Your task to perform on an android device: What is the news today? Image 0: 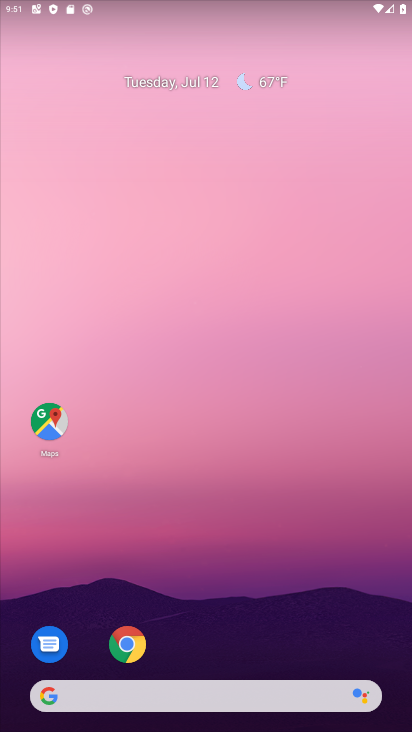
Step 0: drag from (156, 573) to (207, 133)
Your task to perform on an android device: What is the news today? Image 1: 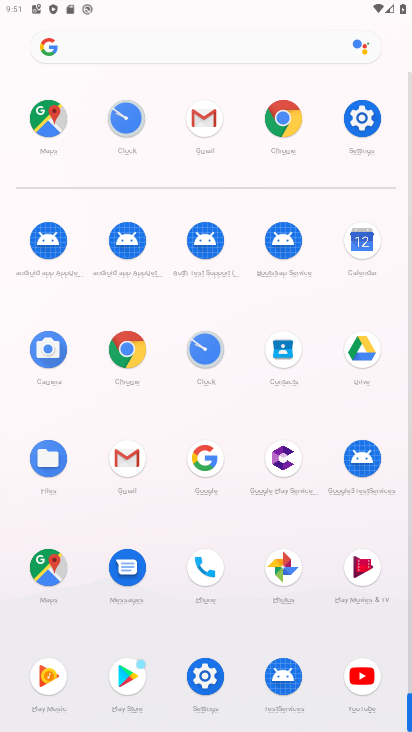
Step 1: click (143, 41)
Your task to perform on an android device: What is the news today? Image 2: 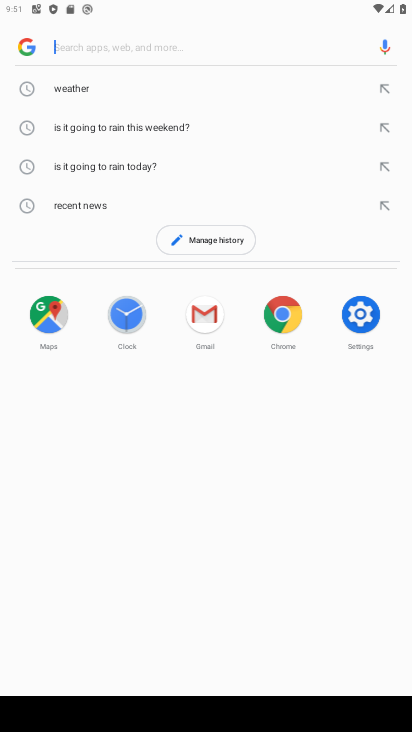
Step 2: type "news today"
Your task to perform on an android device: What is the news today? Image 3: 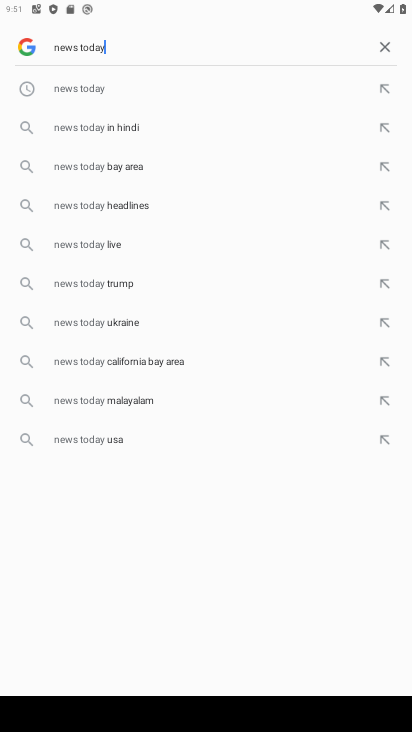
Step 3: click (125, 89)
Your task to perform on an android device: What is the news today? Image 4: 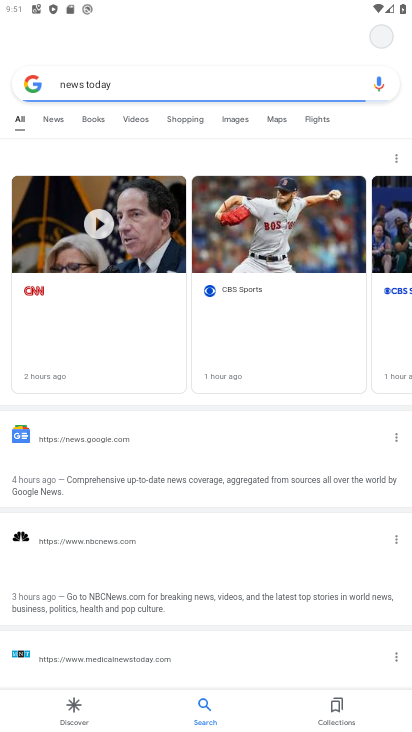
Step 4: task complete